Your task to perform on an android device: set an alarm Image 0: 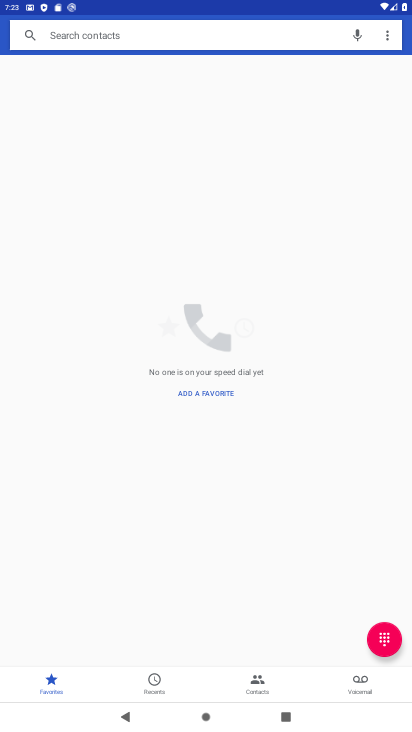
Step 0: press home button
Your task to perform on an android device: set an alarm Image 1: 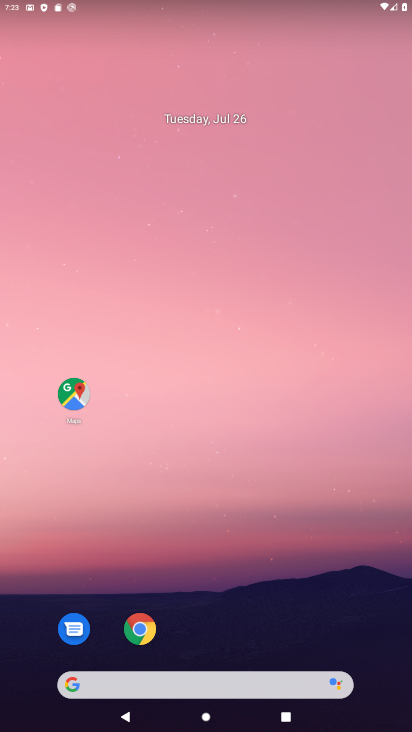
Step 1: drag from (219, 645) to (246, 3)
Your task to perform on an android device: set an alarm Image 2: 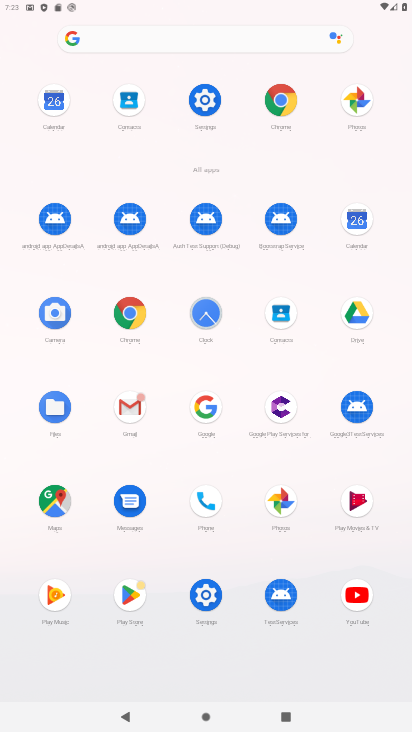
Step 2: click (208, 316)
Your task to perform on an android device: set an alarm Image 3: 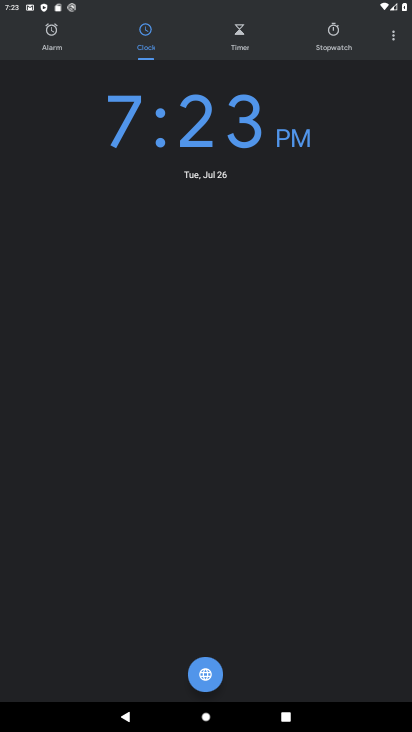
Step 3: click (52, 41)
Your task to perform on an android device: set an alarm Image 4: 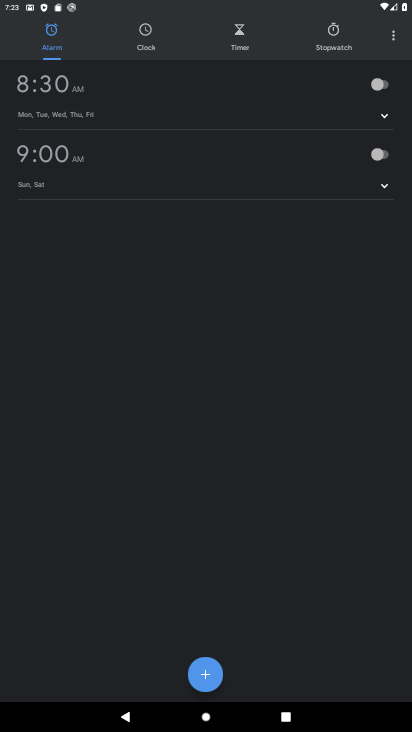
Step 4: click (231, 159)
Your task to perform on an android device: set an alarm Image 5: 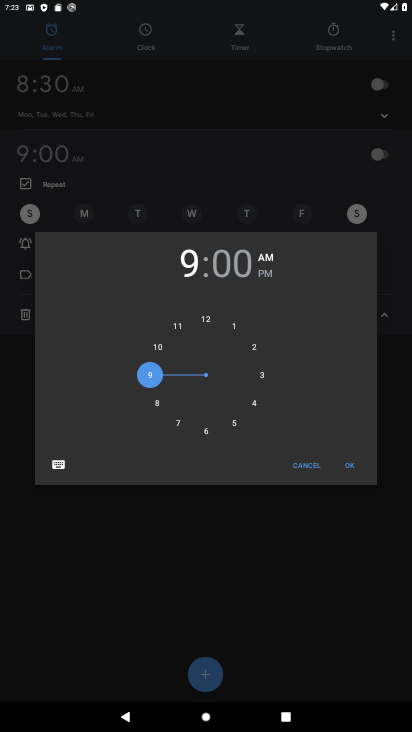
Step 5: click (203, 312)
Your task to perform on an android device: set an alarm Image 6: 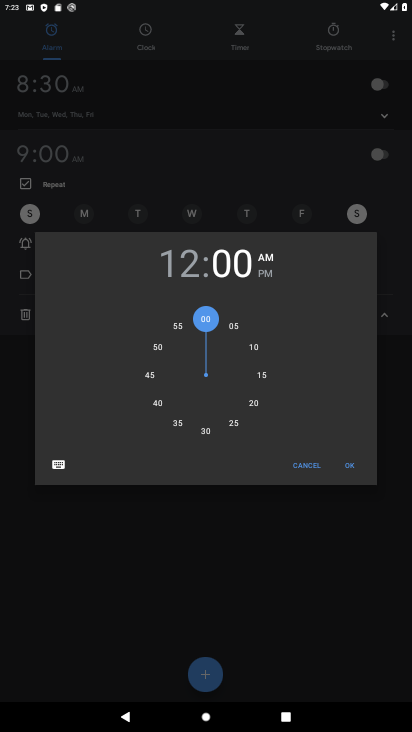
Step 6: click (251, 408)
Your task to perform on an android device: set an alarm Image 7: 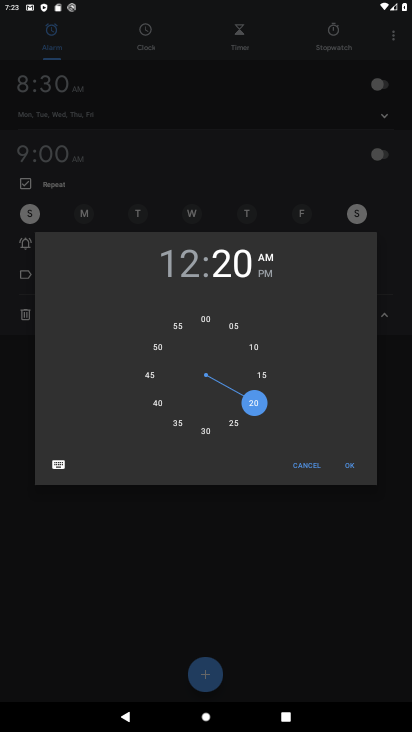
Step 7: click (357, 463)
Your task to perform on an android device: set an alarm Image 8: 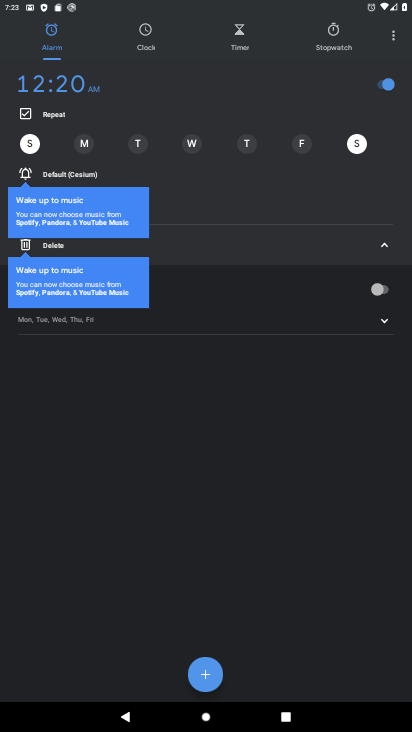
Step 8: click (303, 143)
Your task to perform on an android device: set an alarm Image 9: 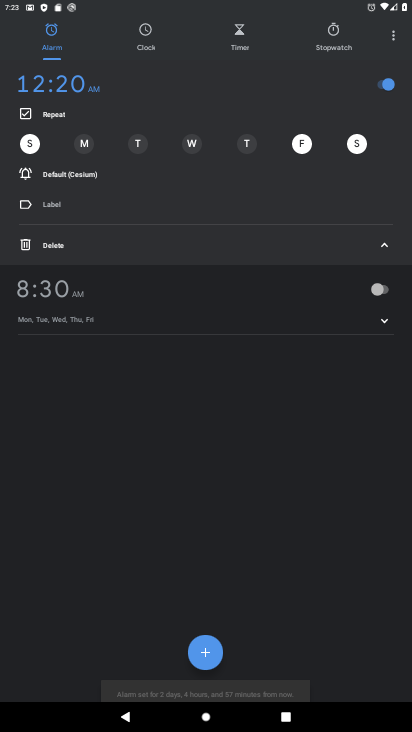
Step 9: click (240, 151)
Your task to perform on an android device: set an alarm Image 10: 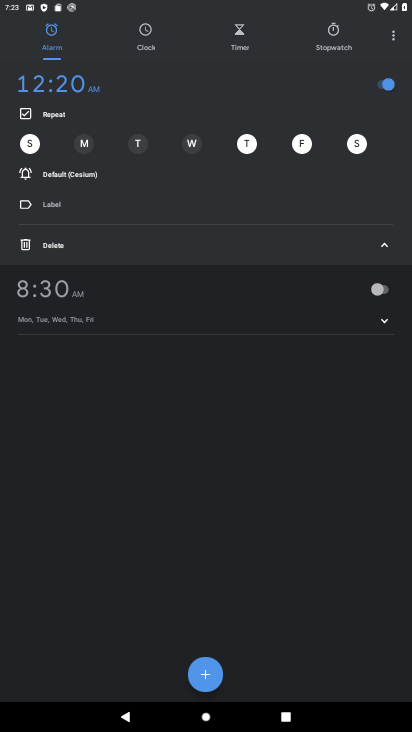
Step 10: task complete